Your task to perform on an android device: toggle airplane mode Image 0: 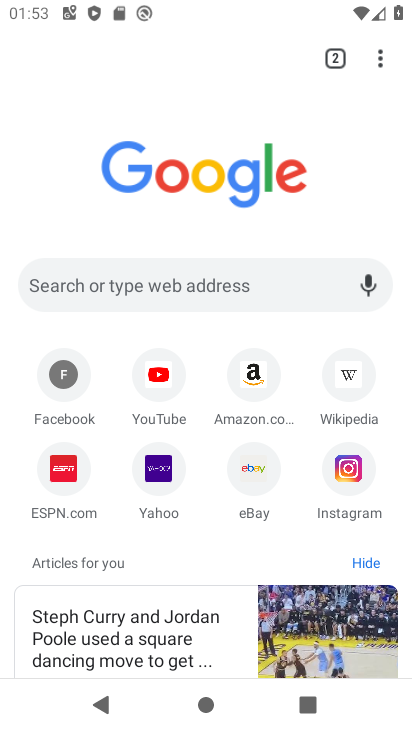
Step 0: click (276, 204)
Your task to perform on an android device: toggle airplane mode Image 1: 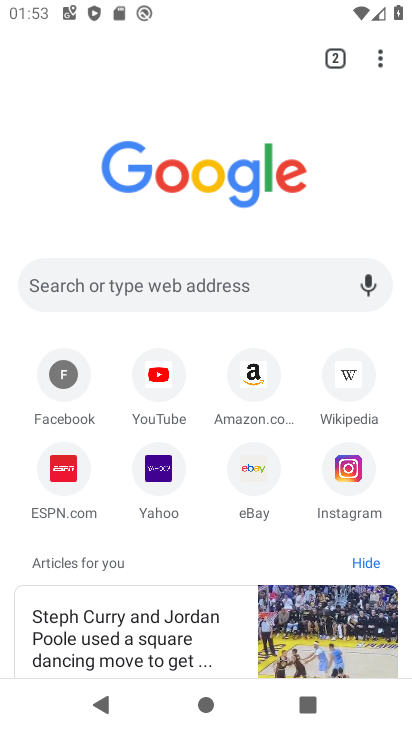
Step 1: press home button
Your task to perform on an android device: toggle airplane mode Image 2: 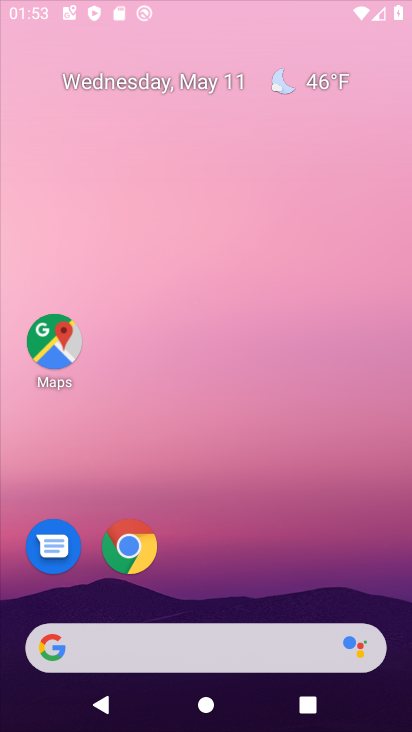
Step 2: drag from (199, 564) to (345, 151)
Your task to perform on an android device: toggle airplane mode Image 3: 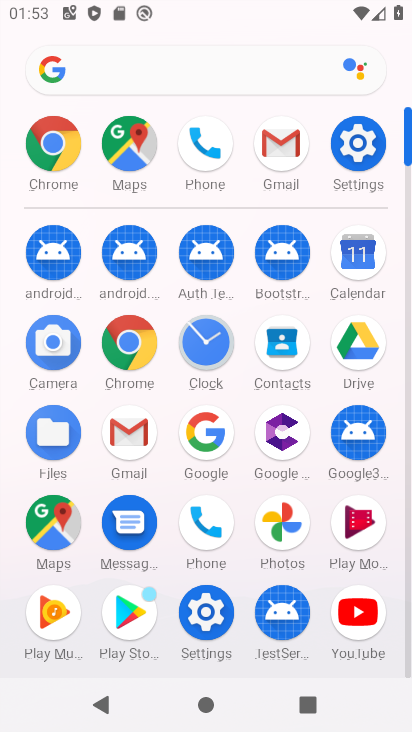
Step 3: click (362, 138)
Your task to perform on an android device: toggle airplane mode Image 4: 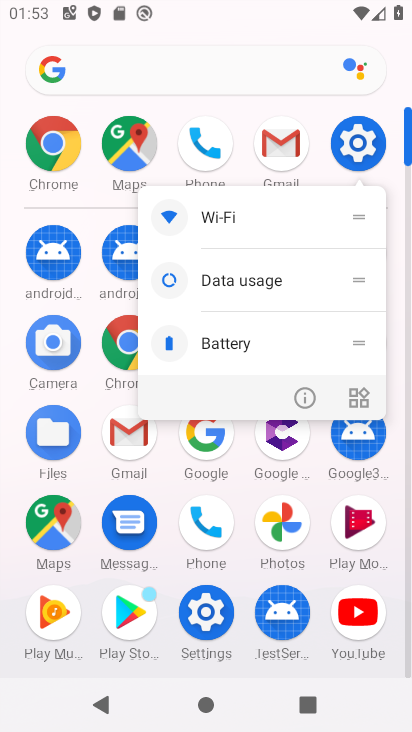
Step 4: click (297, 388)
Your task to perform on an android device: toggle airplane mode Image 5: 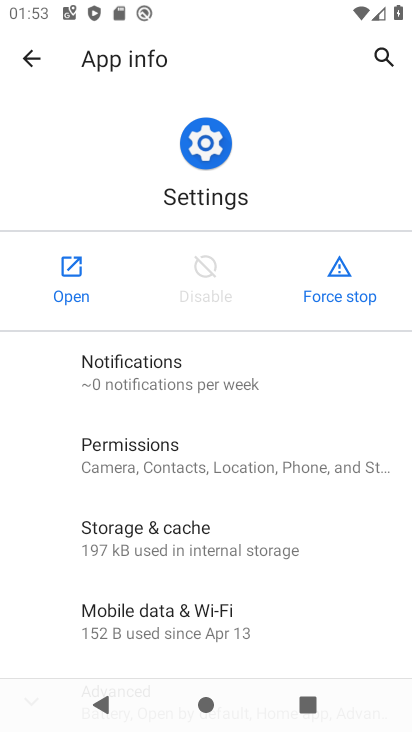
Step 5: click (82, 276)
Your task to perform on an android device: toggle airplane mode Image 6: 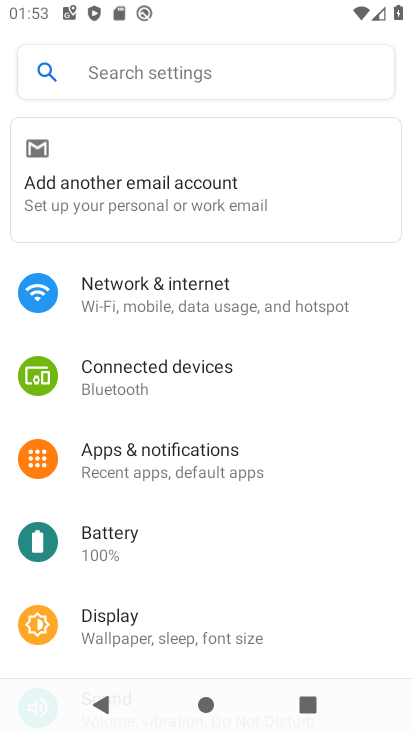
Step 6: drag from (199, 585) to (275, 175)
Your task to perform on an android device: toggle airplane mode Image 7: 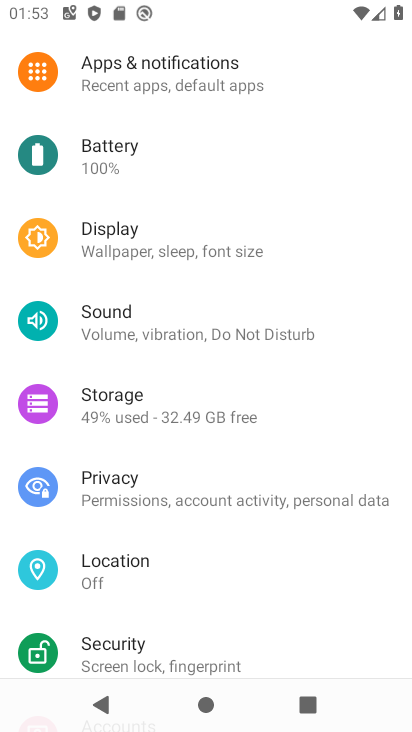
Step 7: drag from (204, 436) to (246, 165)
Your task to perform on an android device: toggle airplane mode Image 8: 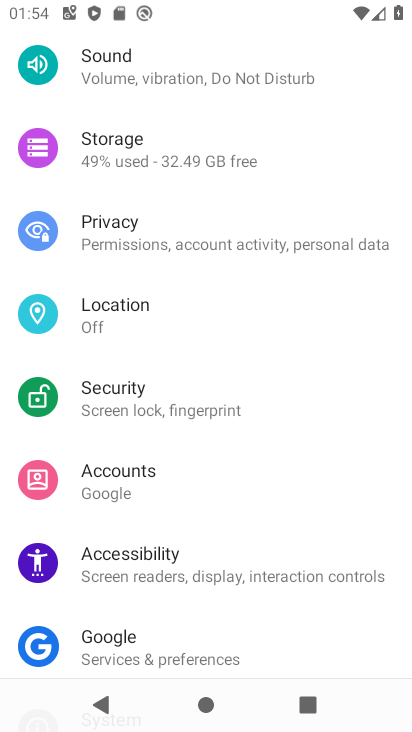
Step 8: drag from (181, 577) to (225, 248)
Your task to perform on an android device: toggle airplane mode Image 9: 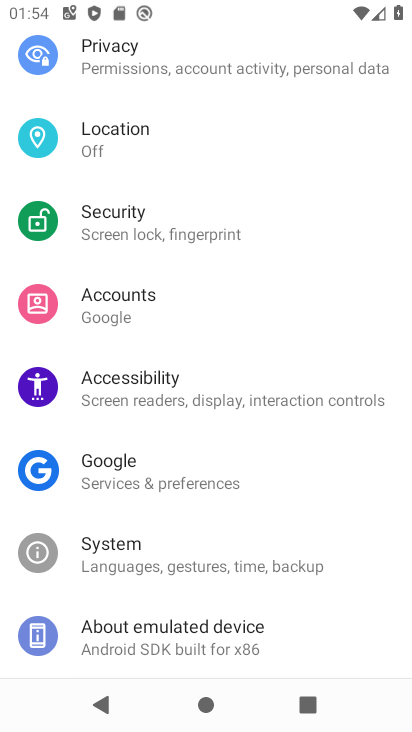
Step 9: drag from (243, 196) to (219, 673)
Your task to perform on an android device: toggle airplane mode Image 10: 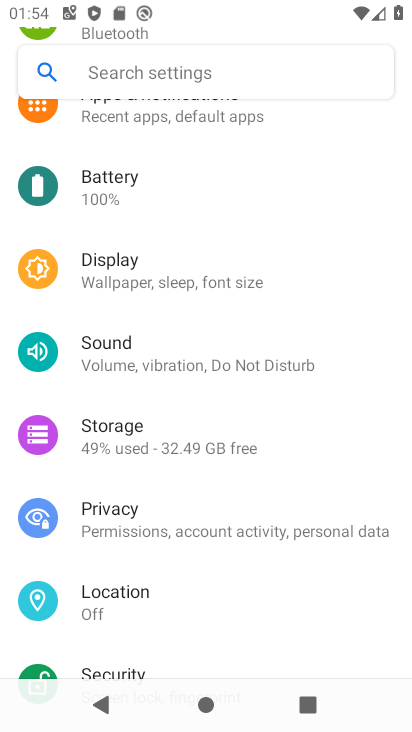
Step 10: drag from (257, 189) to (253, 568)
Your task to perform on an android device: toggle airplane mode Image 11: 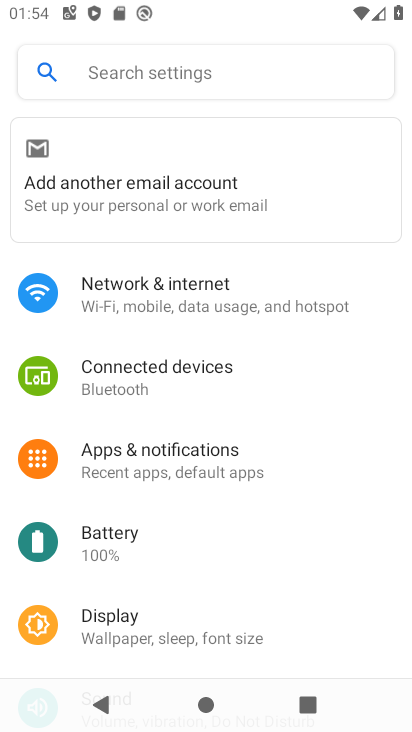
Step 11: click (135, 285)
Your task to perform on an android device: toggle airplane mode Image 12: 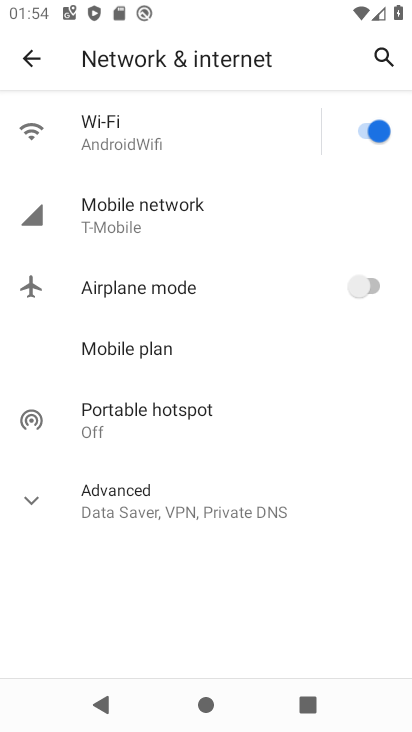
Step 12: click (136, 282)
Your task to perform on an android device: toggle airplane mode Image 13: 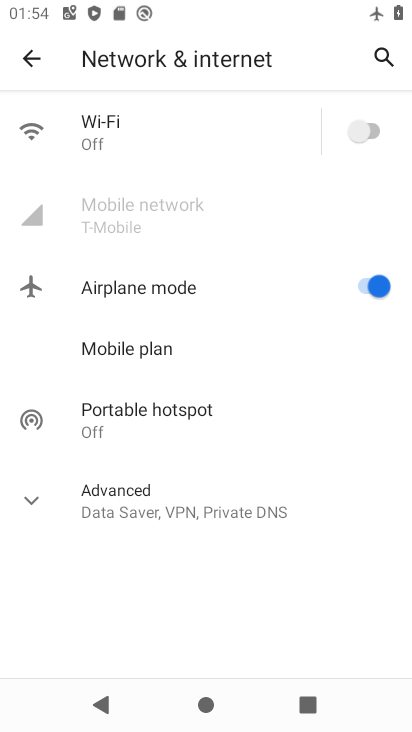
Step 13: task complete